Your task to perform on an android device: change notification settings in the gmail app Image 0: 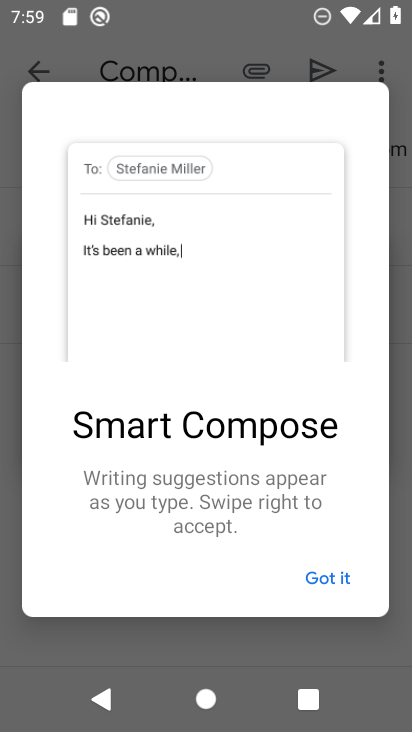
Step 0: press home button
Your task to perform on an android device: change notification settings in the gmail app Image 1: 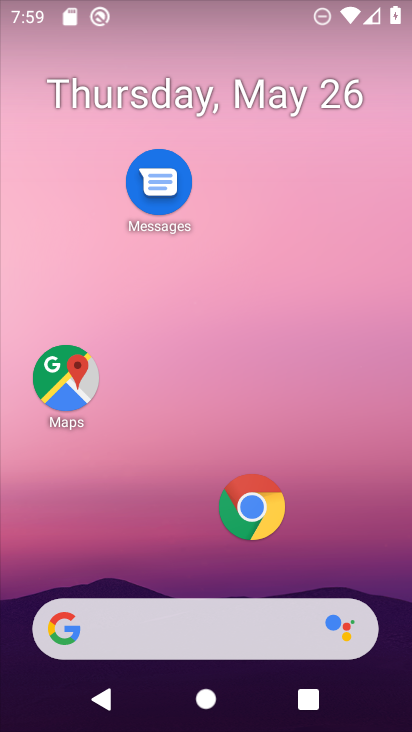
Step 1: drag from (176, 576) to (164, 114)
Your task to perform on an android device: change notification settings in the gmail app Image 2: 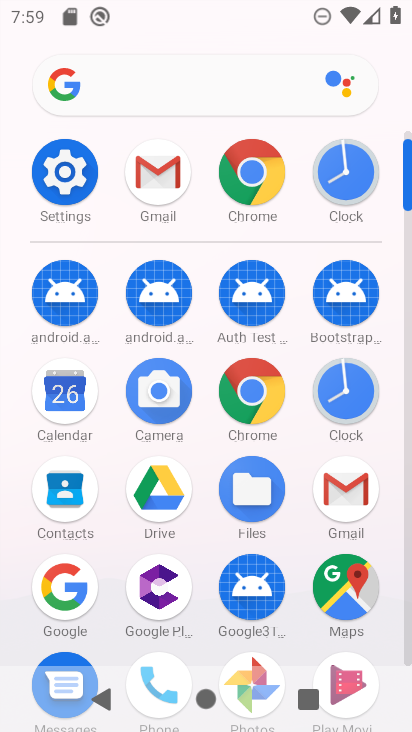
Step 2: click (160, 160)
Your task to perform on an android device: change notification settings in the gmail app Image 3: 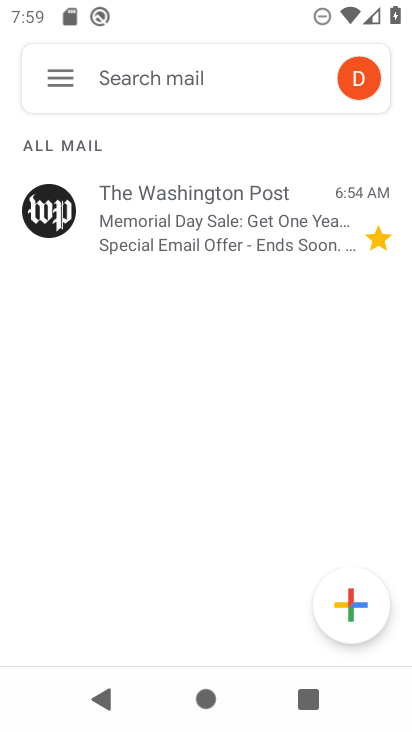
Step 3: click (72, 79)
Your task to perform on an android device: change notification settings in the gmail app Image 4: 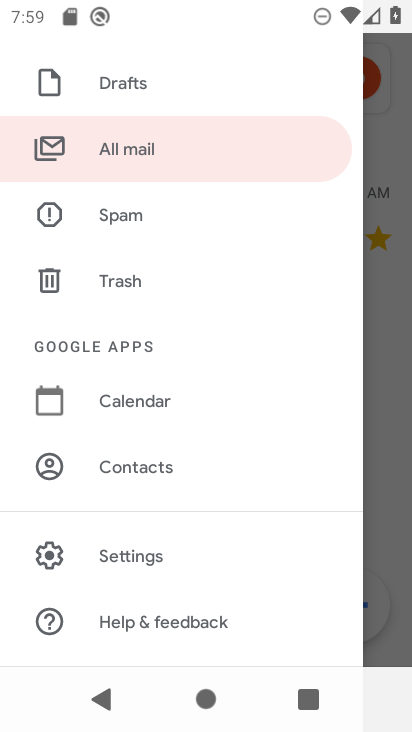
Step 4: click (137, 571)
Your task to perform on an android device: change notification settings in the gmail app Image 5: 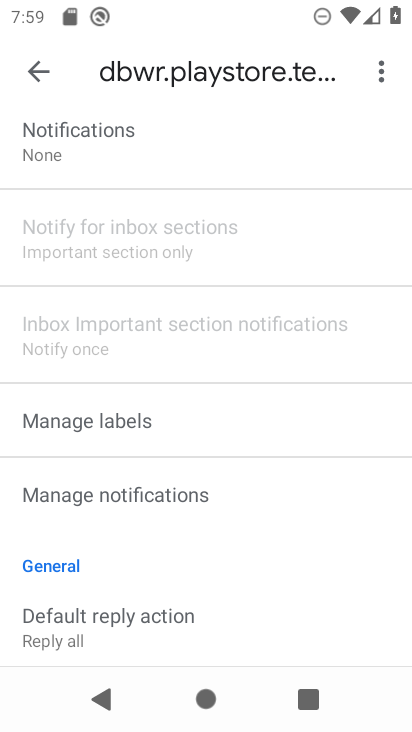
Step 5: click (149, 497)
Your task to perform on an android device: change notification settings in the gmail app Image 6: 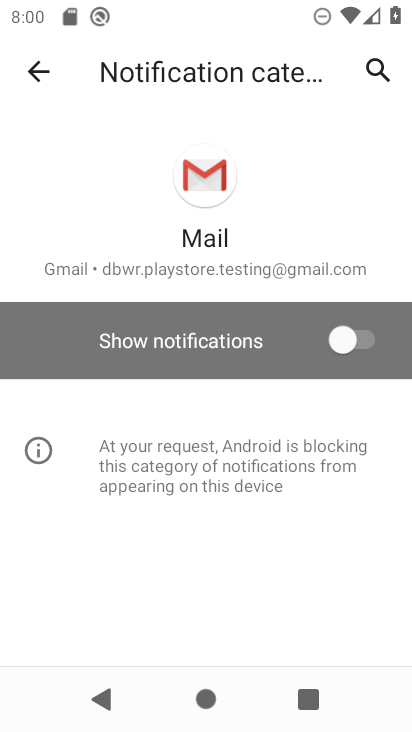
Step 6: click (361, 335)
Your task to perform on an android device: change notification settings in the gmail app Image 7: 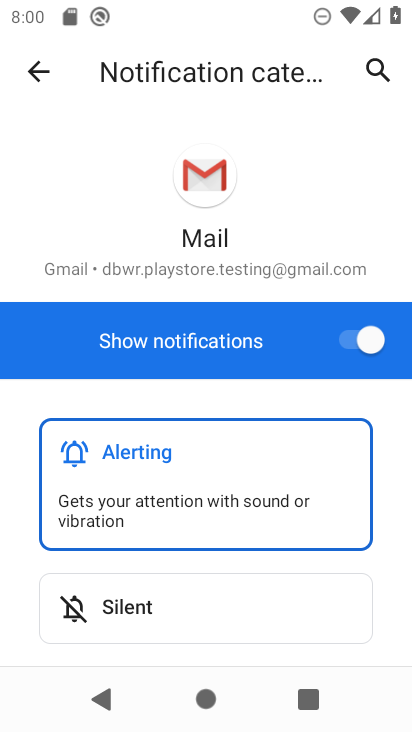
Step 7: task complete